Your task to perform on an android device: Open maps Image 0: 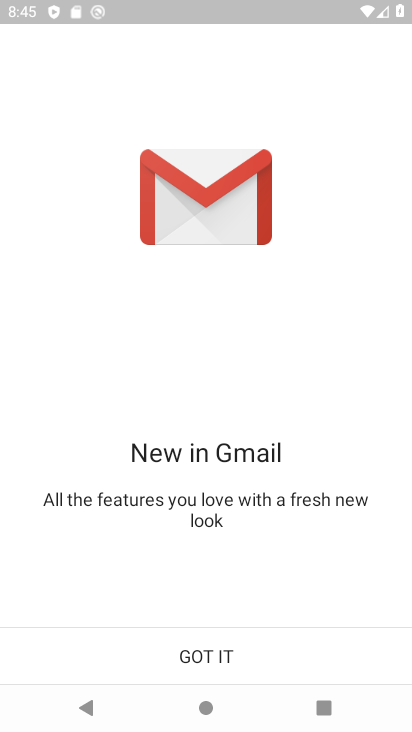
Step 0: press home button
Your task to perform on an android device: Open maps Image 1: 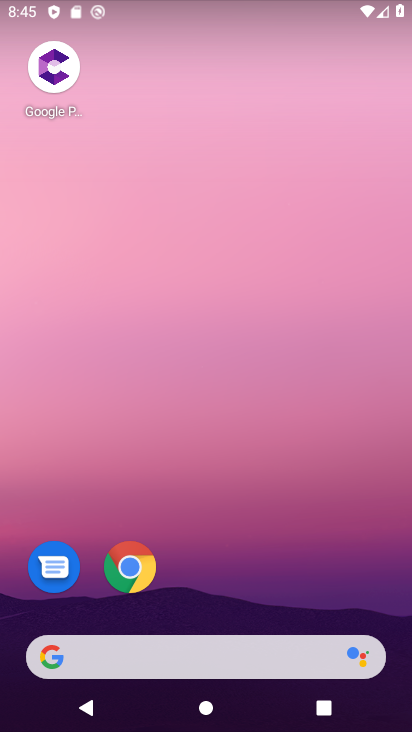
Step 1: drag from (162, 638) to (167, 216)
Your task to perform on an android device: Open maps Image 2: 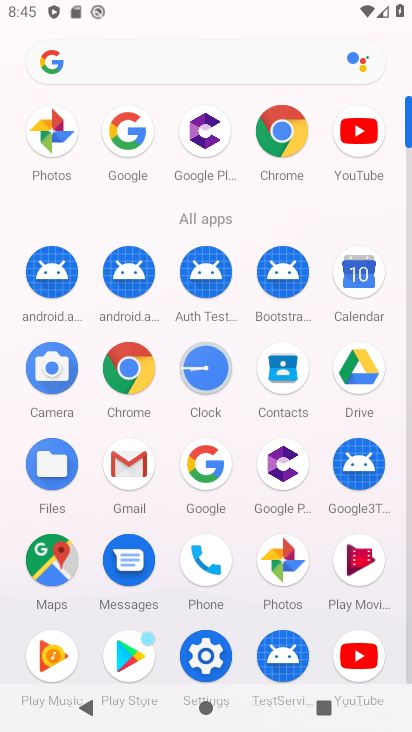
Step 2: click (50, 564)
Your task to perform on an android device: Open maps Image 3: 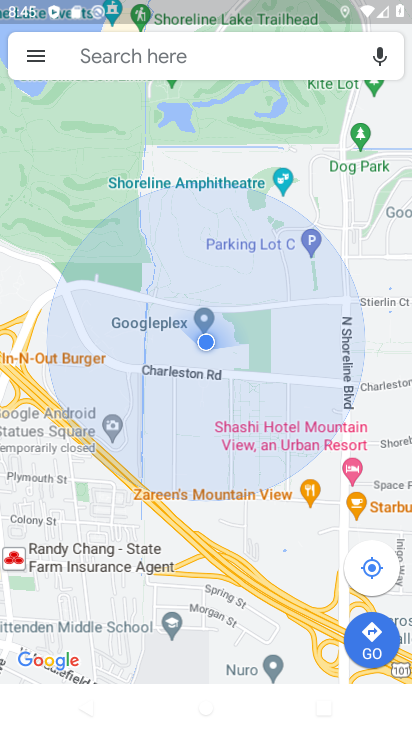
Step 3: task complete